Your task to perform on an android device: change notifications settings Image 0: 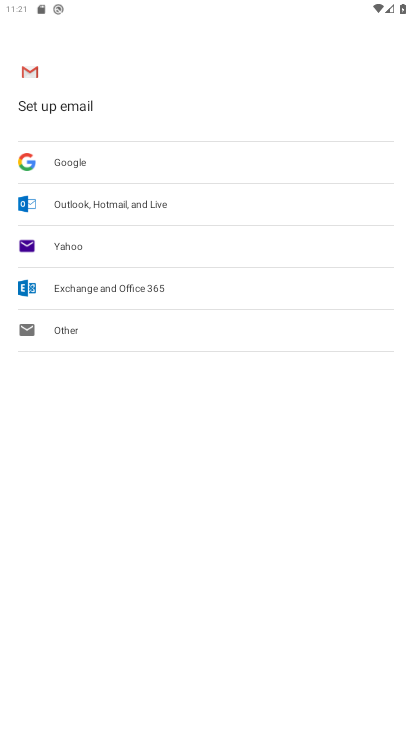
Step 0: task complete